Your task to perform on an android device: Go to Google maps Image 0: 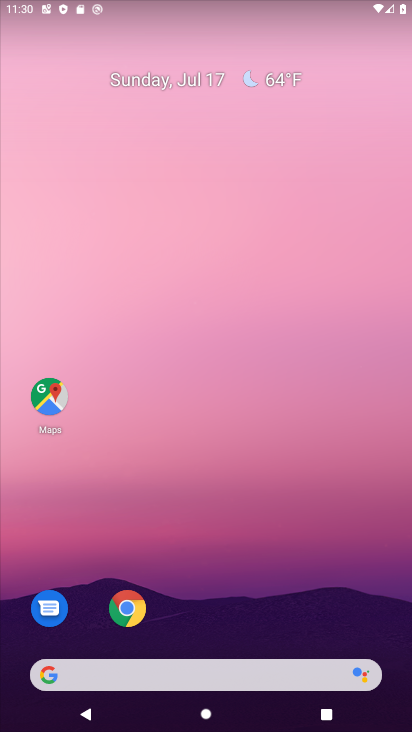
Step 0: drag from (395, 656) to (7, 39)
Your task to perform on an android device: Go to Google maps Image 1: 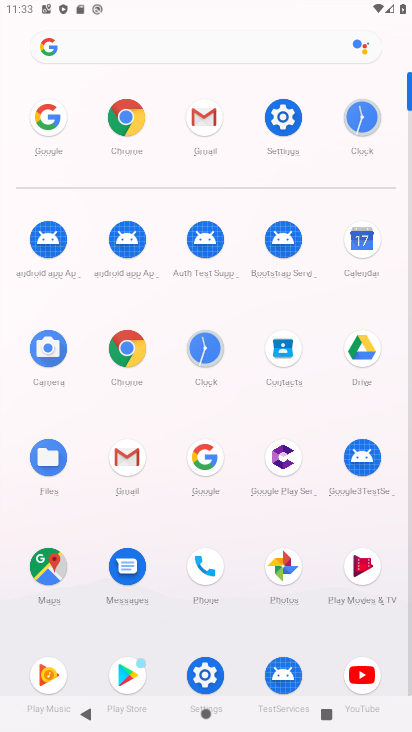
Step 1: click (40, 562)
Your task to perform on an android device: Go to Google maps Image 2: 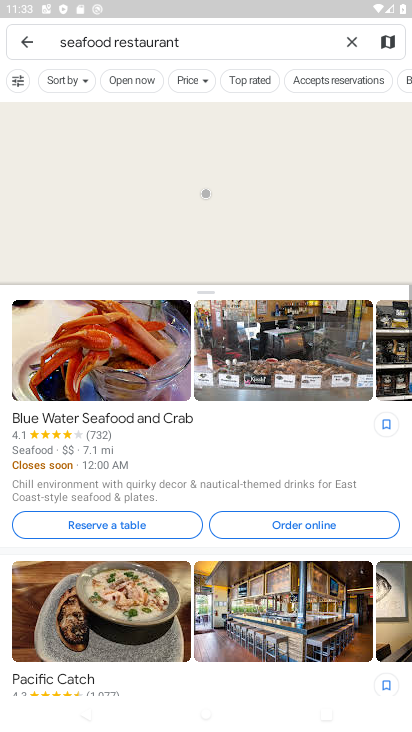
Step 2: click (348, 47)
Your task to perform on an android device: Go to Google maps Image 3: 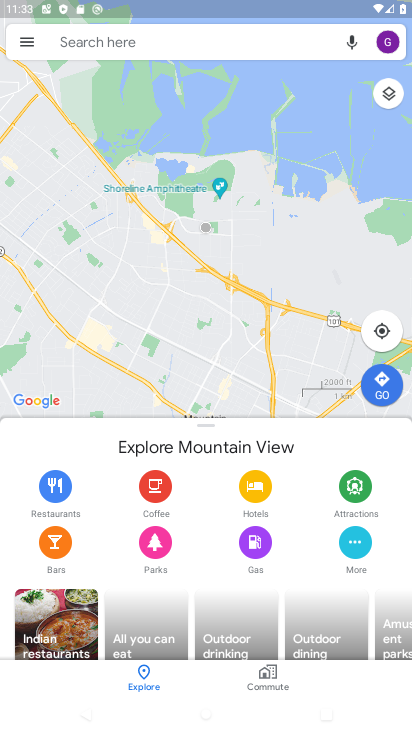
Step 3: task complete